Your task to perform on an android device: open wifi settings Image 0: 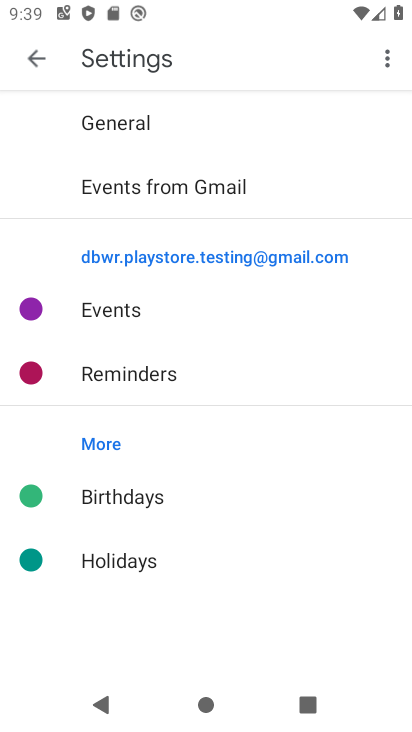
Step 0: press home button
Your task to perform on an android device: open wifi settings Image 1: 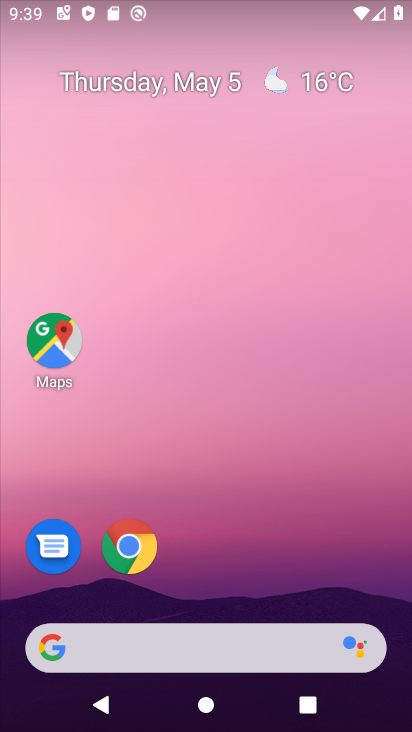
Step 1: drag from (233, 577) to (218, 182)
Your task to perform on an android device: open wifi settings Image 2: 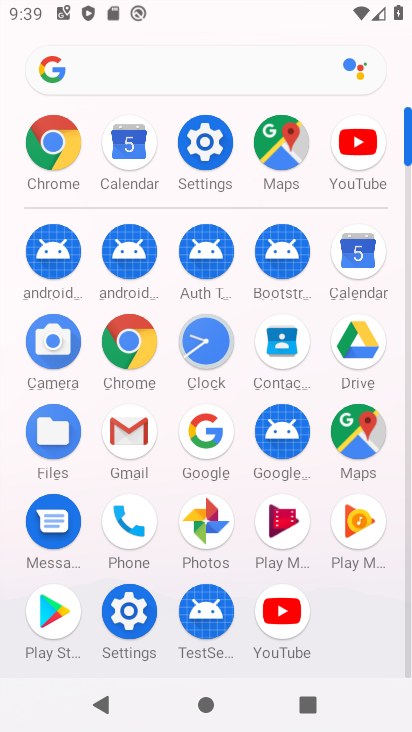
Step 2: click (124, 624)
Your task to perform on an android device: open wifi settings Image 3: 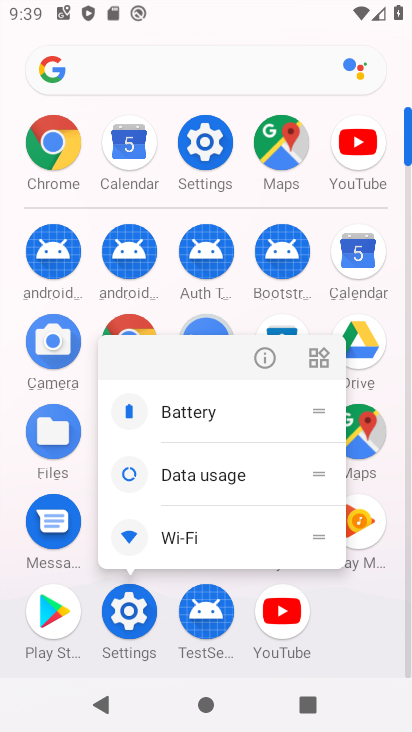
Step 3: click (139, 590)
Your task to perform on an android device: open wifi settings Image 4: 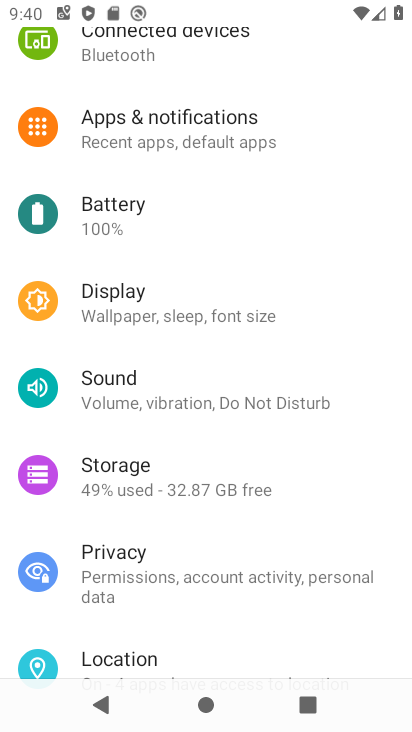
Step 4: drag from (149, 252) to (207, 475)
Your task to perform on an android device: open wifi settings Image 5: 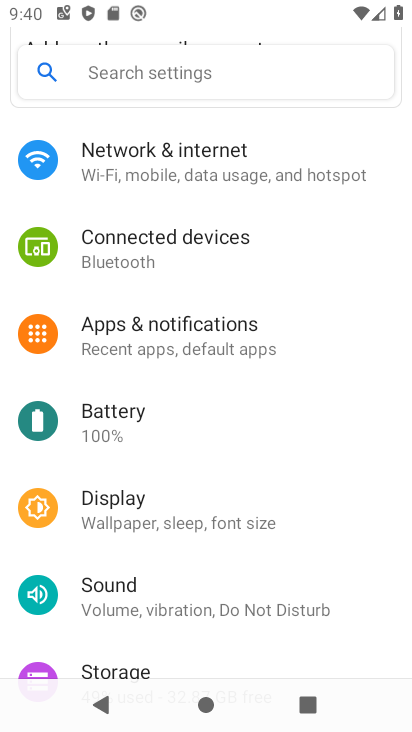
Step 5: click (158, 166)
Your task to perform on an android device: open wifi settings Image 6: 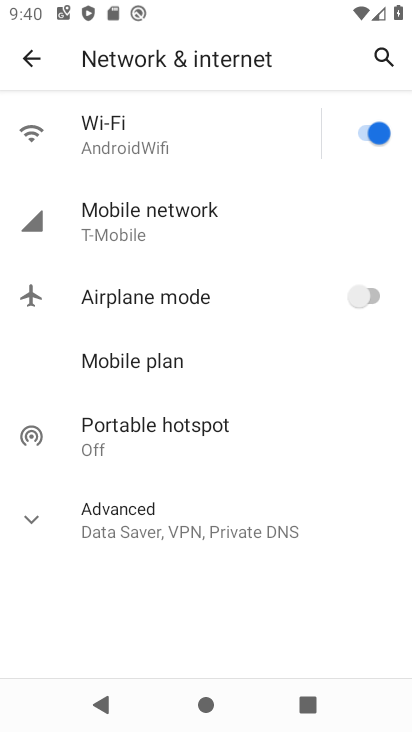
Step 6: click (147, 142)
Your task to perform on an android device: open wifi settings Image 7: 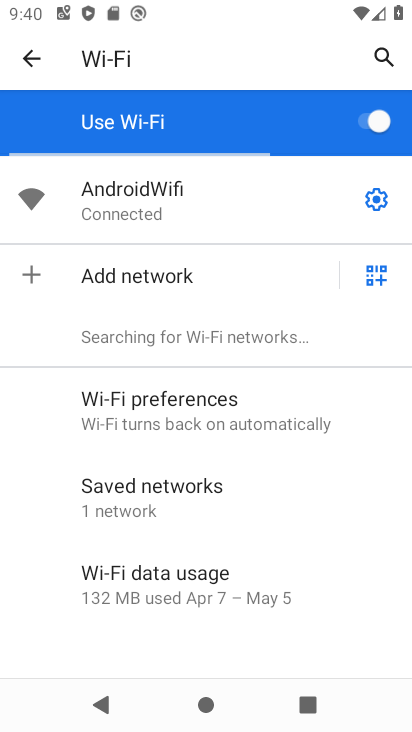
Step 7: task complete